Your task to perform on an android device: open chrome and create a bookmark for the current page Image 0: 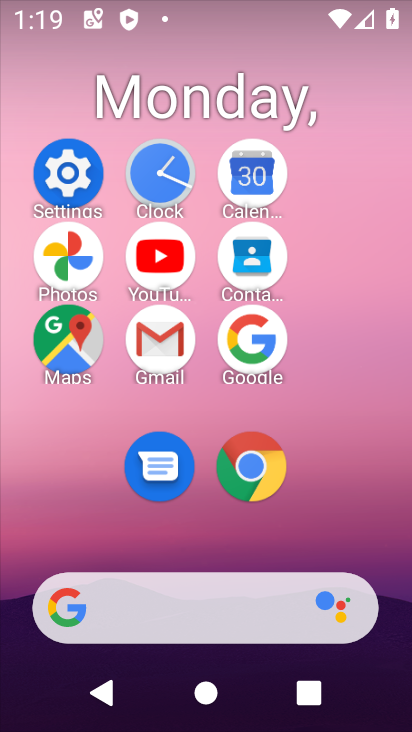
Step 0: click (269, 459)
Your task to perform on an android device: open chrome and create a bookmark for the current page Image 1: 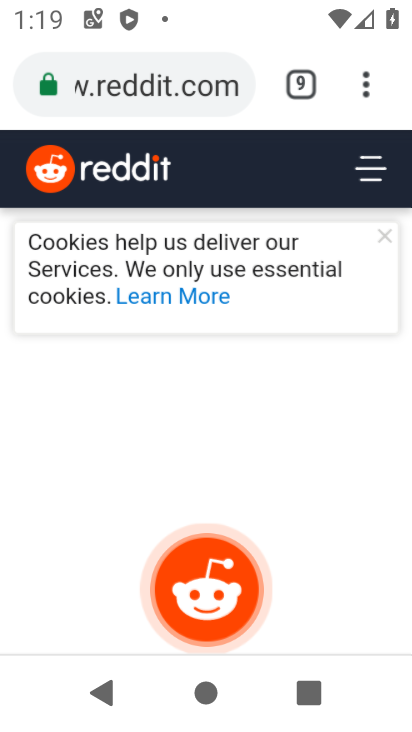
Step 1: click (368, 69)
Your task to perform on an android device: open chrome and create a bookmark for the current page Image 2: 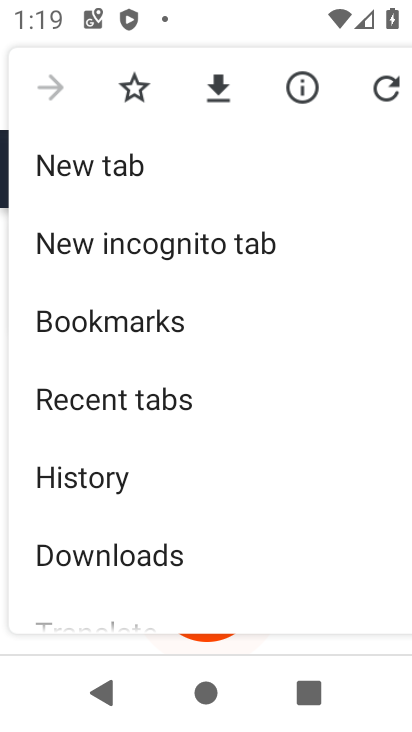
Step 2: click (150, 98)
Your task to perform on an android device: open chrome and create a bookmark for the current page Image 3: 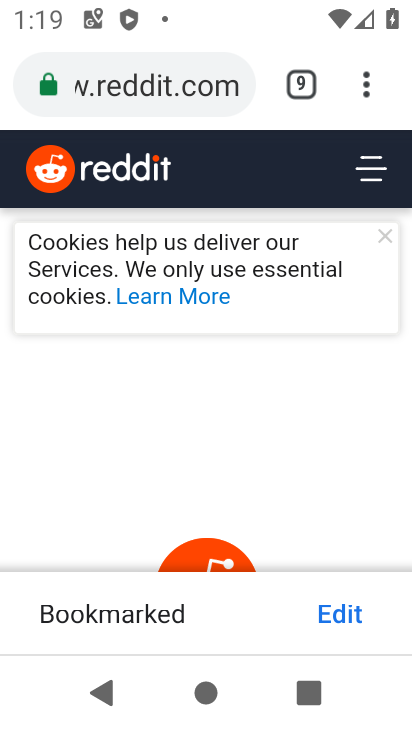
Step 3: task complete